Your task to perform on an android device: toggle notification dots Image 0: 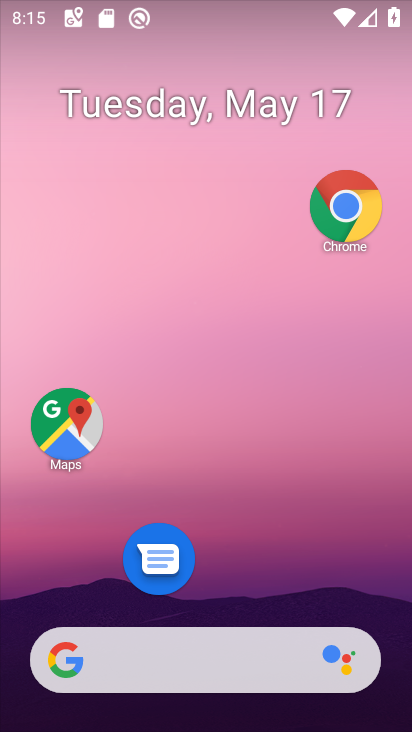
Step 0: drag from (198, 669) to (295, 349)
Your task to perform on an android device: toggle notification dots Image 1: 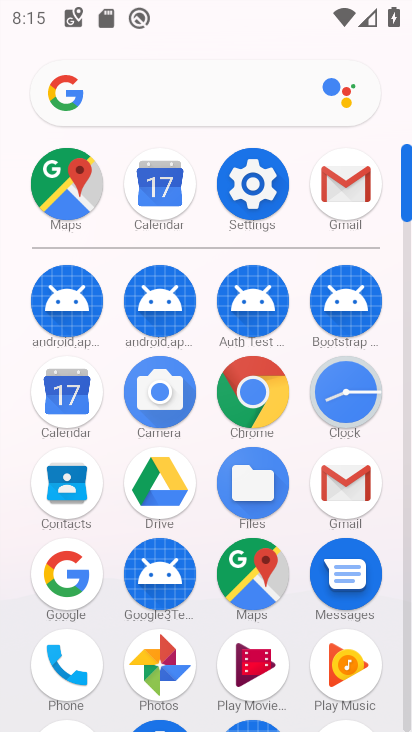
Step 1: click (257, 185)
Your task to perform on an android device: toggle notification dots Image 2: 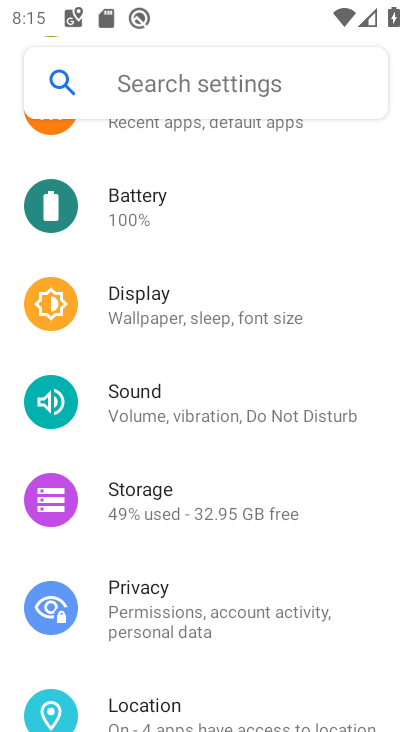
Step 2: drag from (228, 235) to (129, 589)
Your task to perform on an android device: toggle notification dots Image 3: 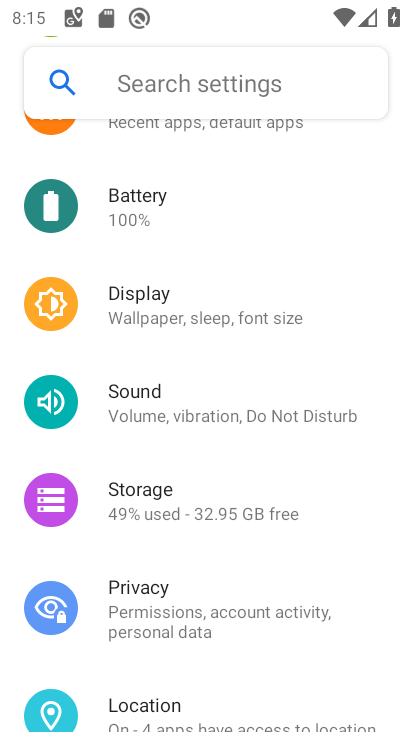
Step 3: drag from (240, 272) to (123, 713)
Your task to perform on an android device: toggle notification dots Image 4: 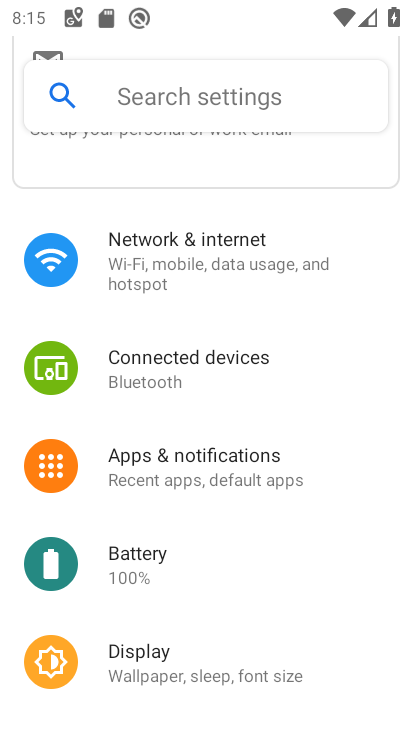
Step 4: click (223, 453)
Your task to perform on an android device: toggle notification dots Image 5: 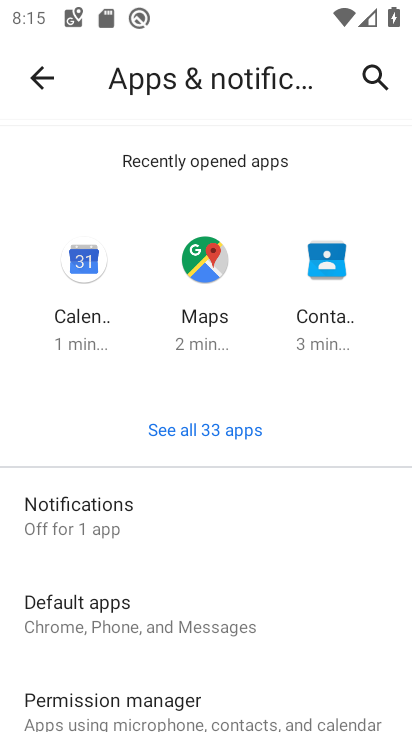
Step 5: click (166, 525)
Your task to perform on an android device: toggle notification dots Image 6: 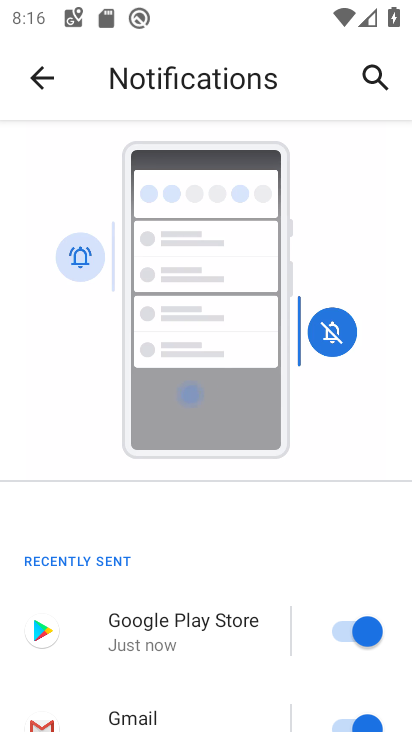
Step 6: drag from (182, 604) to (190, 300)
Your task to perform on an android device: toggle notification dots Image 7: 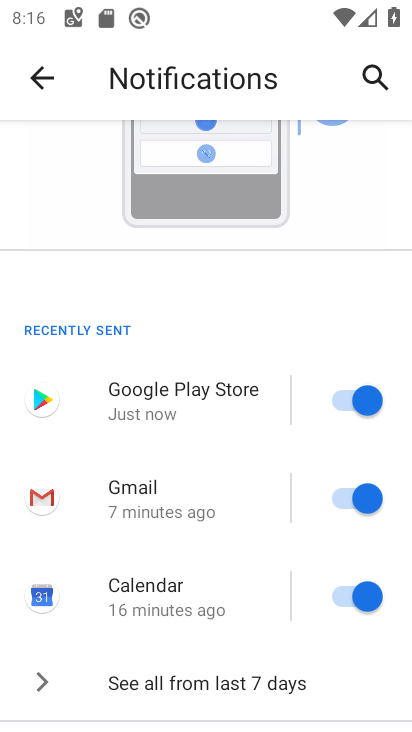
Step 7: drag from (245, 569) to (298, 165)
Your task to perform on an android device: toggle notification dots Image 8: 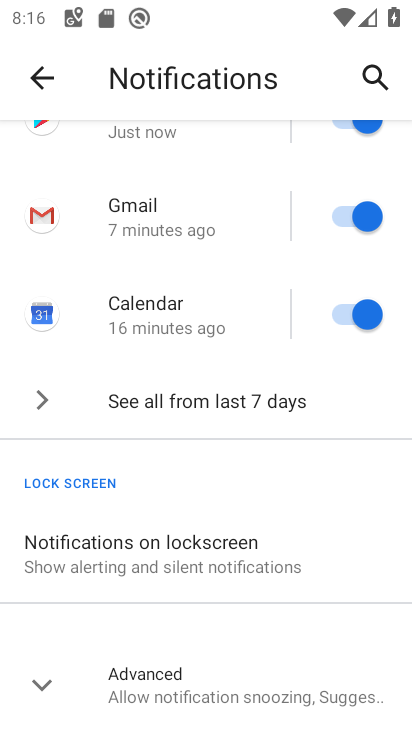
Step 8: click (193, 678)
Your task to perform on an android device: toggle notification dots Image 9: 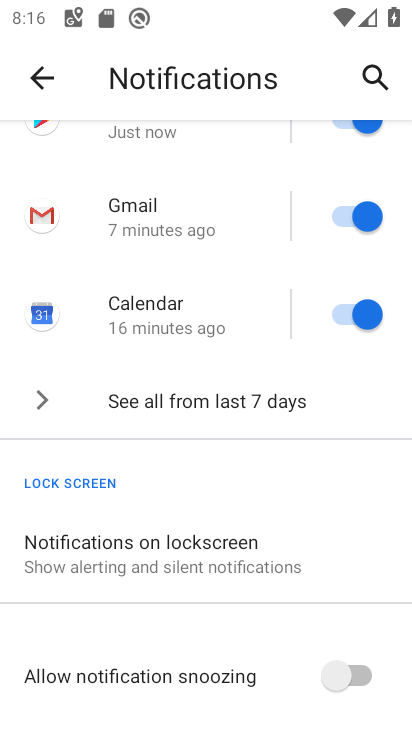
Step 9: drag from (215, 612) to (298, 259)
Your task to perform on an android device: toggle notification dots Image 10: 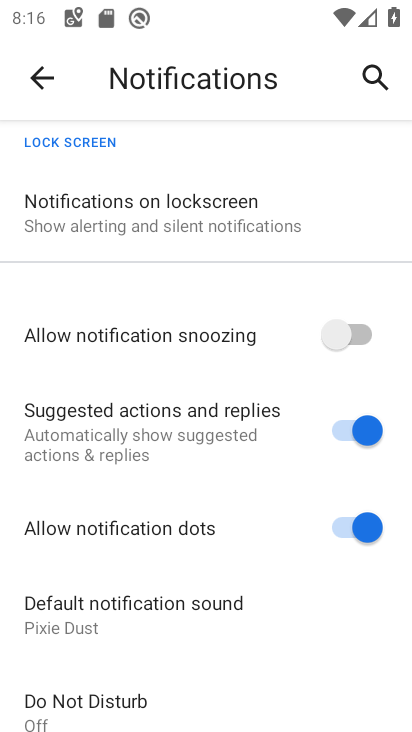
Step 10: click (340, 538)
Your task to perform on an android device: toggle notification dots Image 11: 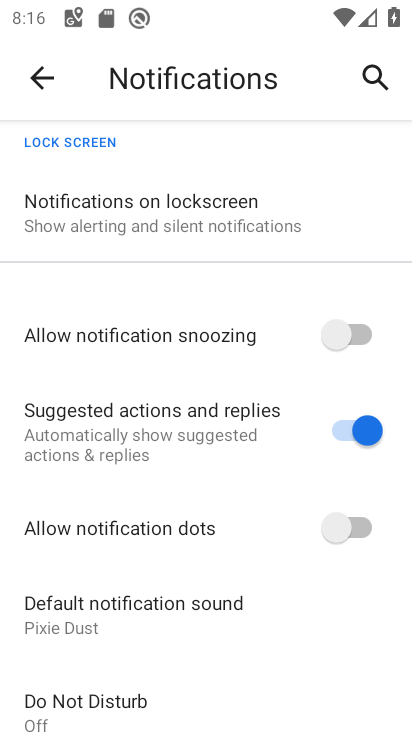
Step 11: task complete